Your task to perform on an android device: visit the assistant section in the google photos Image 0: 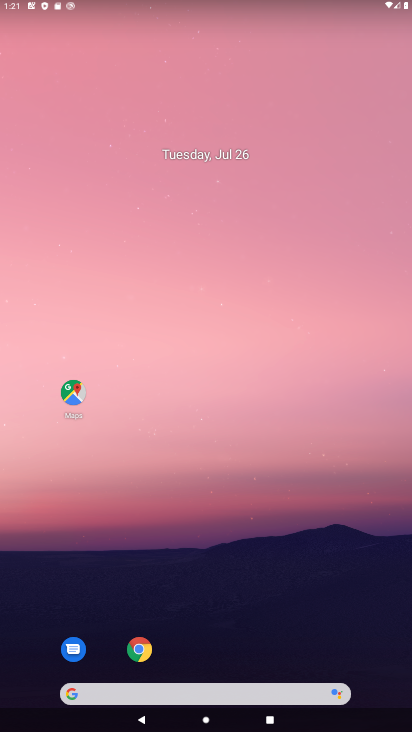
Step 0: drag from (327, 679) to (216, 59)
Your task to perform on an android device: visit the assistant section in the google photos Image 1: 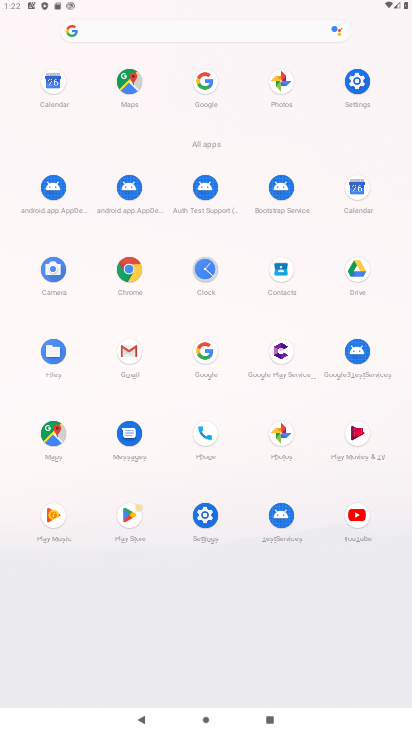
Step 1: click (289, 443)
Your task to perform on an android device: visit the assistant section in the google photos Image 2: 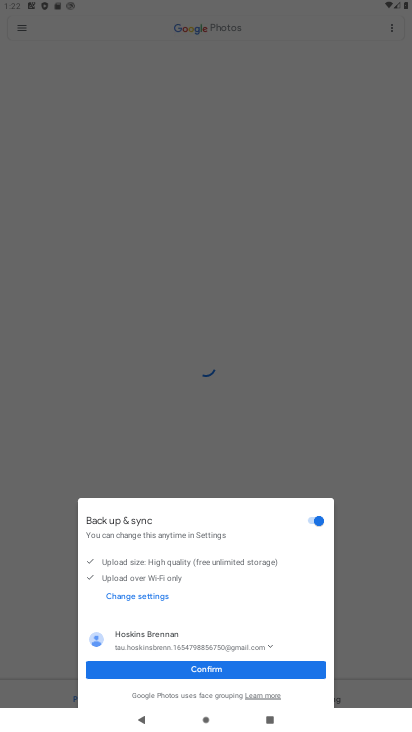
Step 2: click (203, 668)
Your task to perform on an android device: visit the assistant section in the google photos Image 3: 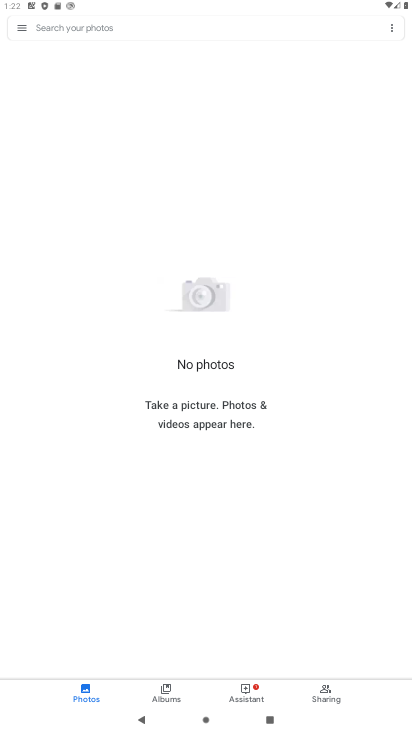
Step 3: click (250, 686)
Your task to perform on an android device: visit the assistant section in the google photos Image 4: 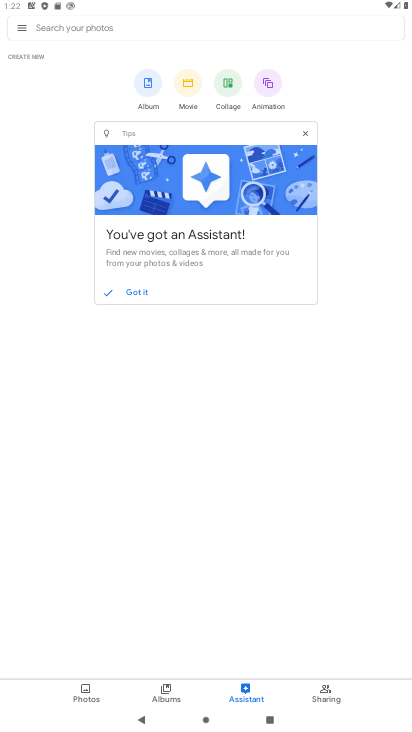
Step 4: task complete